Your task to perform on an android device: change your default location settings in chrome Image 0: 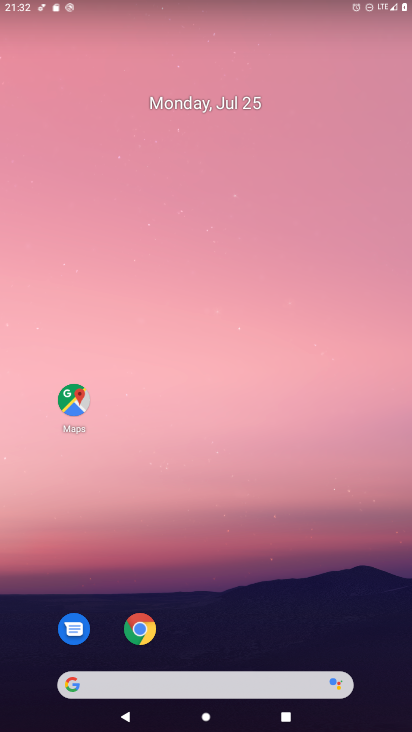
Step 0: click (138, 629)
Your task to perform on an android device: change your default location settings in chrome Image 1: 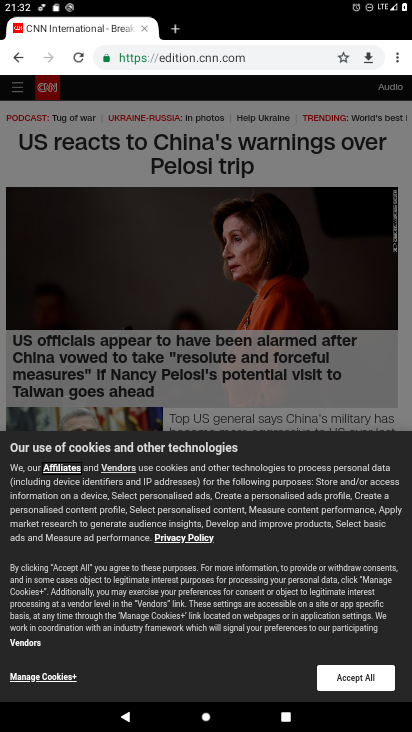
Step 1: click (397, 59)
Your task to perform on an android device: change your default location settings in chrome Image 2: 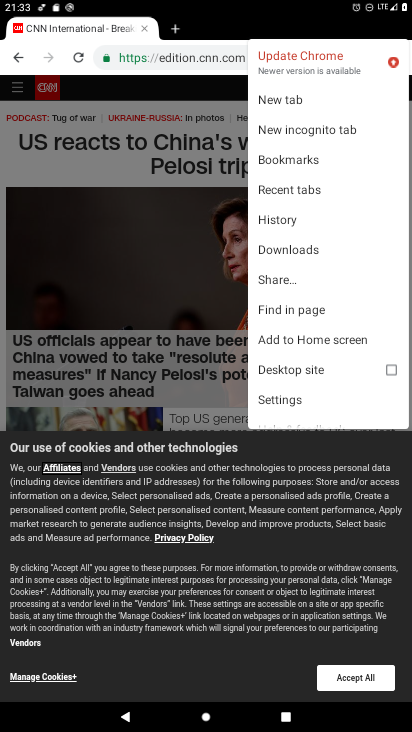
Step 2: click (288, 400)
Your task to perform on an android device: change your default location settings in chrome Image 3: 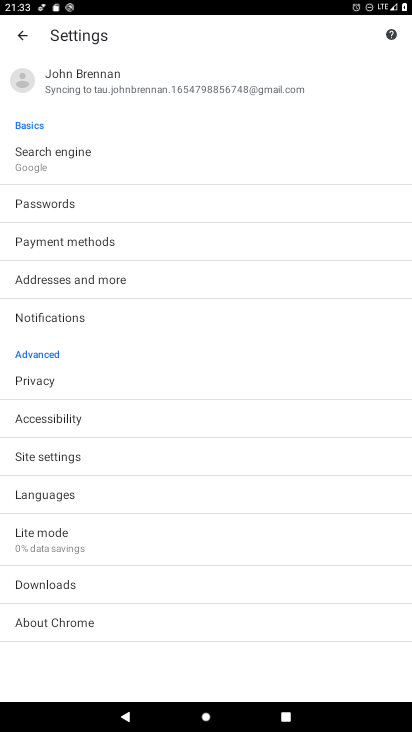
Step 3: click (63, 457)
Your task to perform on an android device: change your default location settings in chrome Image 4: 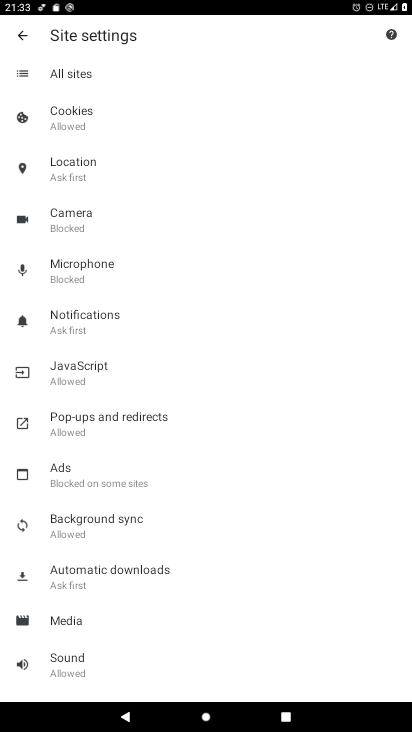
Step 4: click (84, 171)
Your task to perform on an android device: change your default location settings in chrome Image 5: 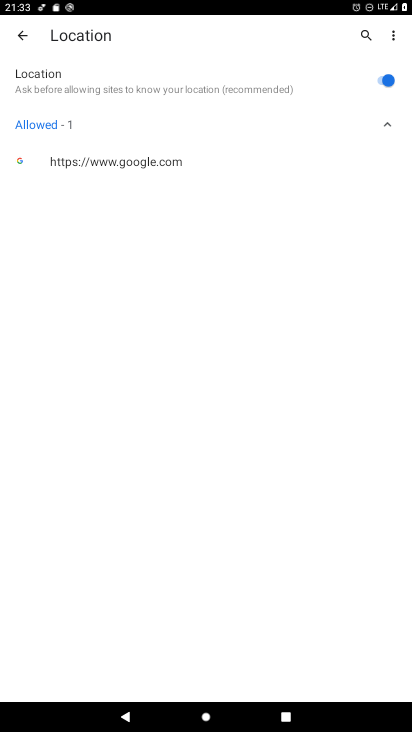
Step 5: click (385, 84)
Your task to perform on an android device: change your default location settings in chrome Image 6: 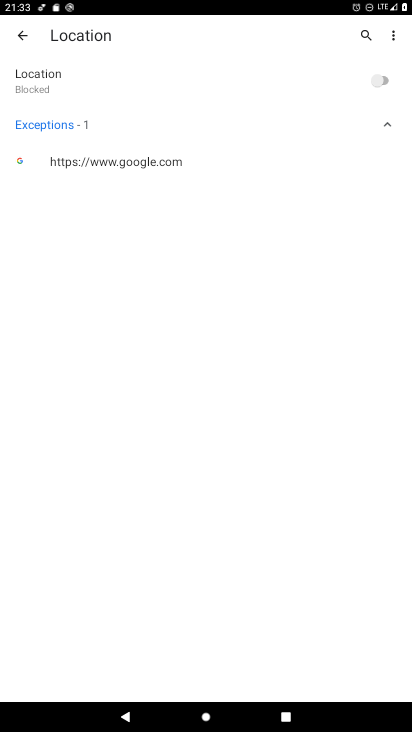
Step 6: task complete